Your task to perform on an android device: Open the phone app and click the voicemail tab. Image 0: 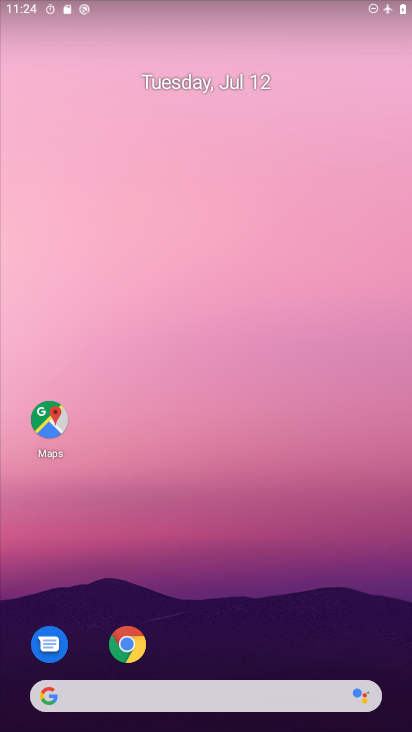
Step 0: drag from (219, 602) to (239, 76)
Your task to perform on an android device: Open the phone app and click the voicemail tab. Image 1: 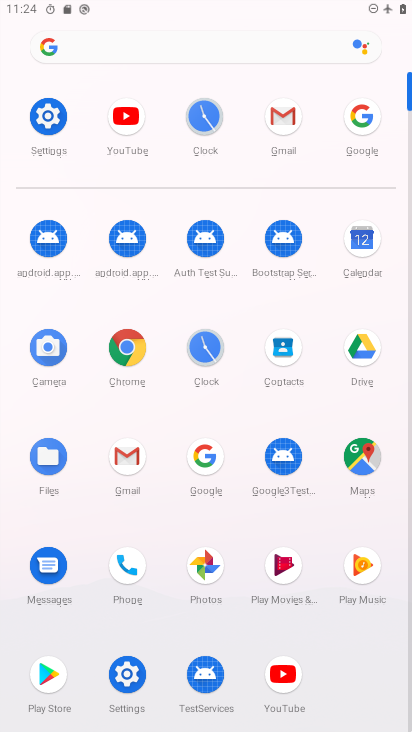
Step 1: click (124, 566)
Your task to perform on an android device: Open the phone app and click the voicemail tab. Image 2: 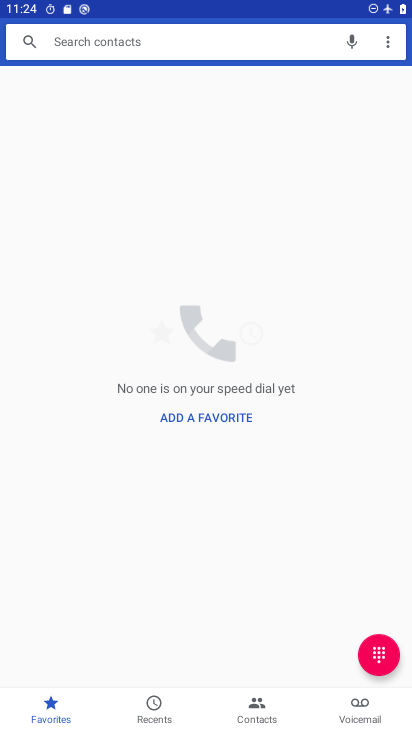
Step 2: click (371, 702)
Your task to perform on an android device: Open the phone app and click the voicemail tab. Image 3: 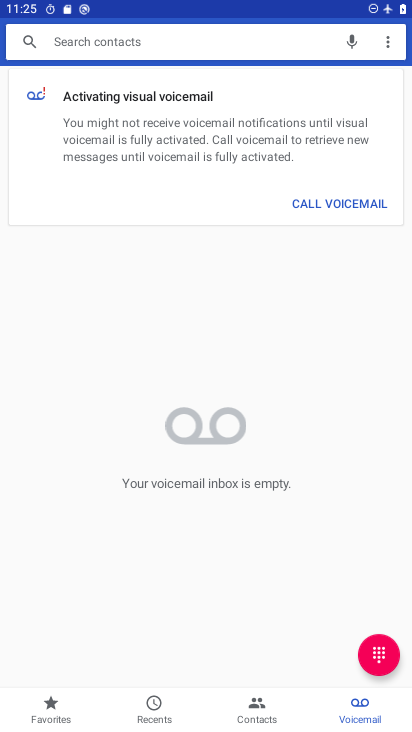
Step 3: task complete